Your task to perform on an android device: Turn on the flashlight Image 0: 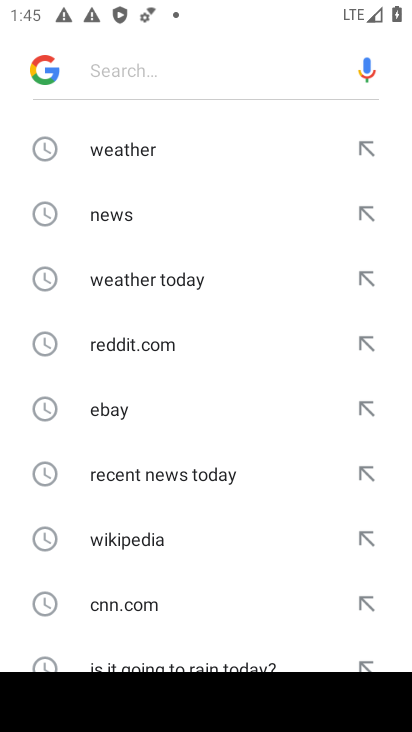
Step 0: press back button
Your task to perform on an android device: Turn on the flashlight Image 1: 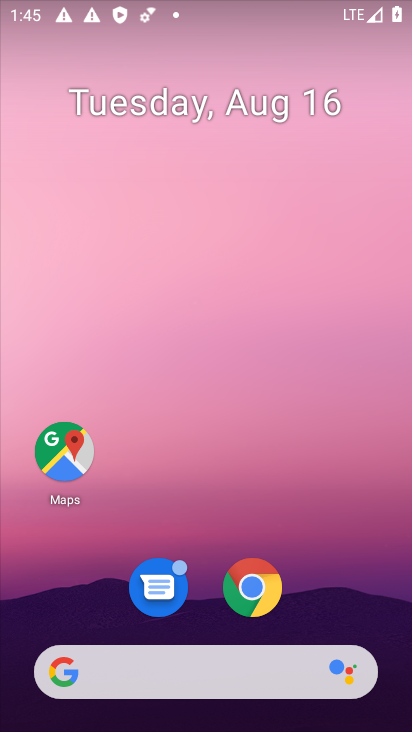
Step 1: drag from (214, 608) to (306, 31)
Your task to perform on an android device: Turn on the flashlight Image 2: 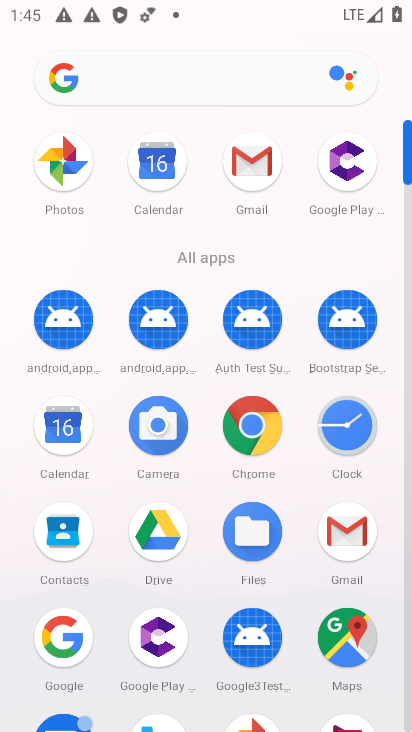
Step 2: drag from (162, 655) to (300, 49)
Your task to perform on an android device: Turn on the flashlight Image 3: 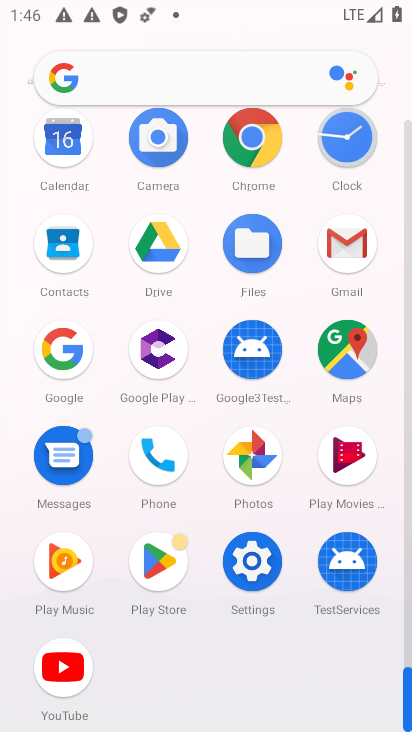
Step 3: click (258, 553)
Your task to perform on an android device: Turn on the flashlight Image 4: 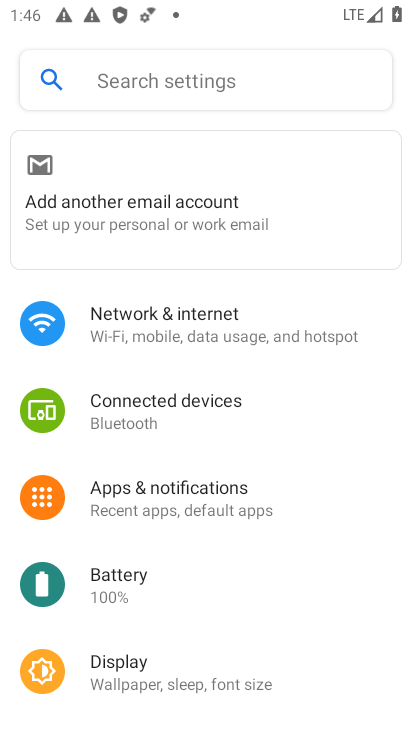
Step 4: click (184, 79)
Your task to perform on an android device: Turn on the flashlight Image 5: 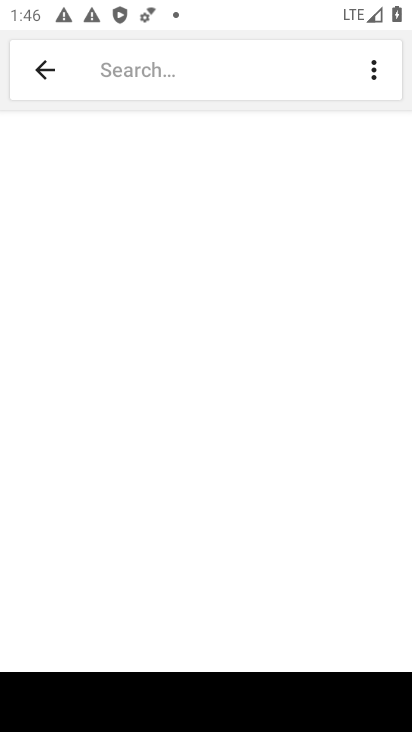
Step 5: type "flashlight"
Your task to perform on an android device: Turn on the flashlight Image 6: 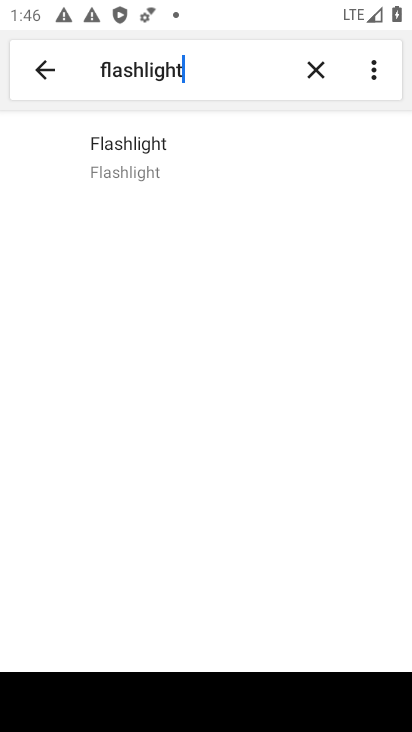
Step 6: click (215, 143)
Your task to perform on an android device: Turn on the flashlight Image 7: 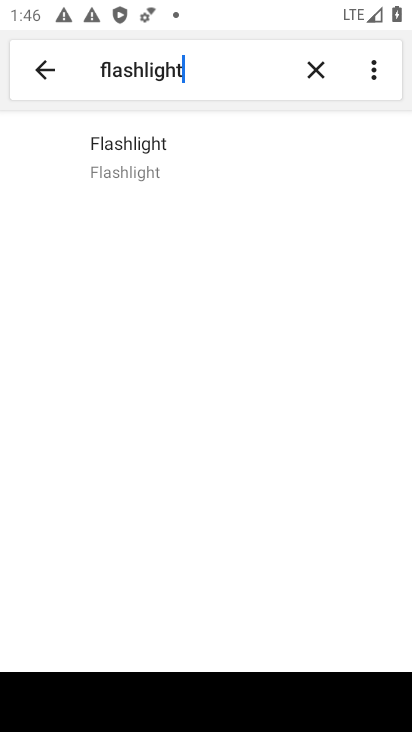
Step 7: click (215, 143)
Your task to perform on an android device: Turn on the flashlight Image 8: 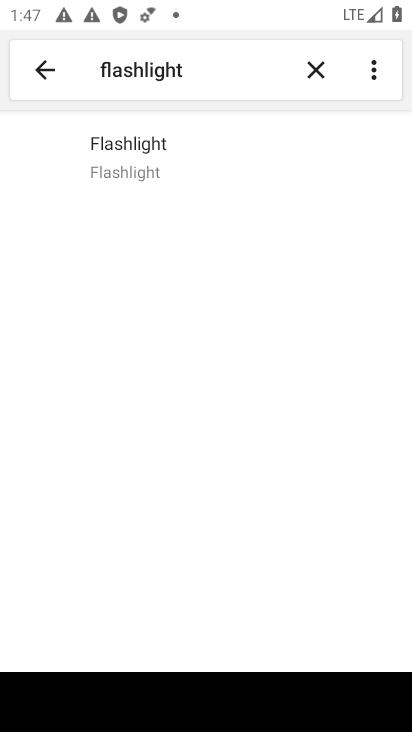
Step 8: click (115, 177)
Your task to perform on an android device: Turn on the flashlight Image 9: 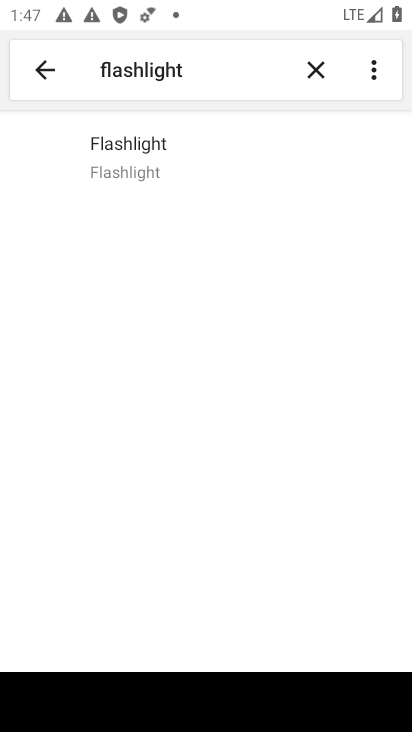
Step 9: task complete